Your task to perform on an android device: Open the Play Movies app and select the watchlist tab. Image 0: 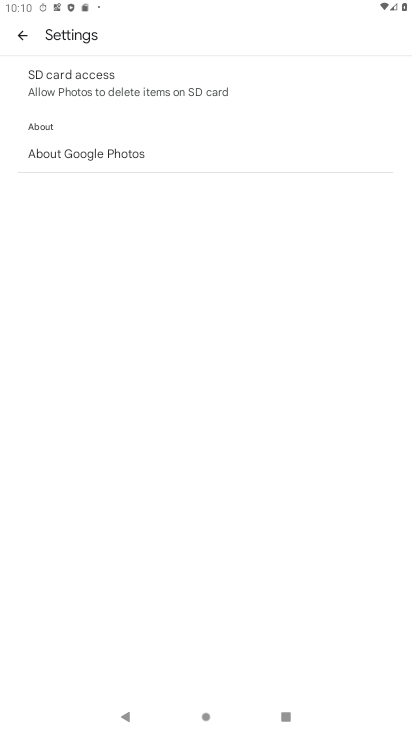
Step 0: press home button
Your task to perform on an android device: Open the Play Movies app and select the watchlist tab. Image 1: 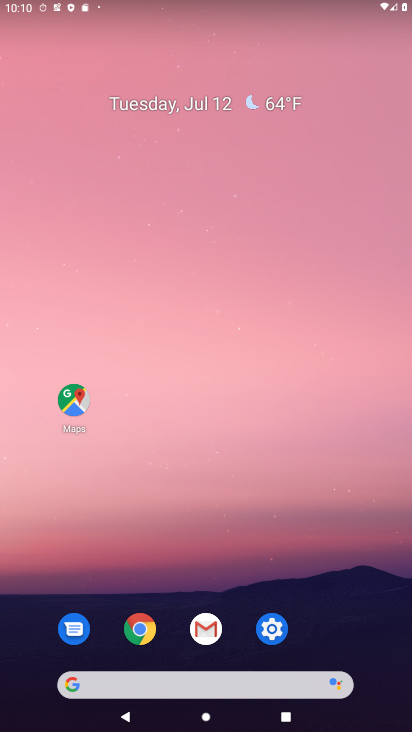
Step 1: drag from (273, 695) to (239, 142)
Your task to perform on an android device: Open the Play Movies app and select the watchlist tab. Image 2: 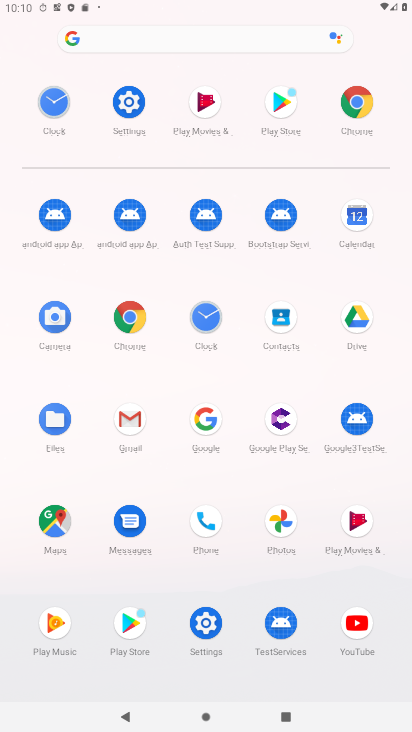
Step 2: click (363, 530)
Your task to perform on an android device: Open the Play Movies app and select the watchlist tab. Image 3: 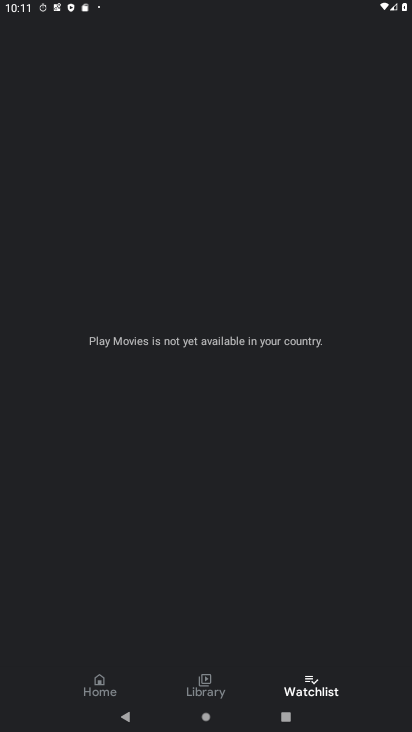
Step 3: task complete